Your task to perform on an android device: see tabs open on other devices in the chrome app Image 0: 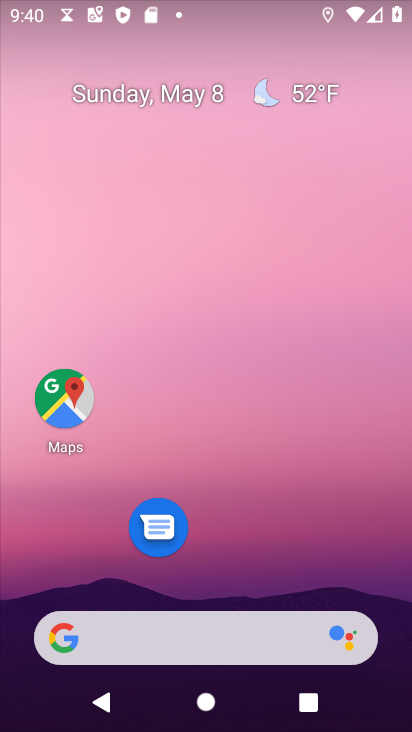
Step 0: drag from (255, 512) to (222, 8)
Your task to perform on an android device: see tabs open on other devices in the chrome app Image 1: 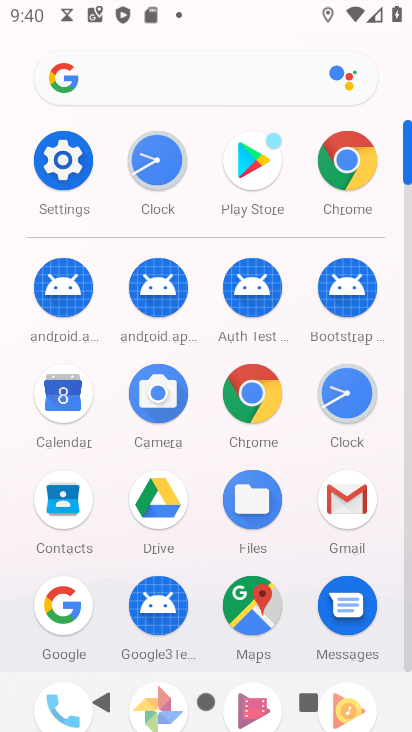
Step 1: click (352, 159)
Your task to perform on an android device: see tabs open on other devices in the chrome app Image 2: 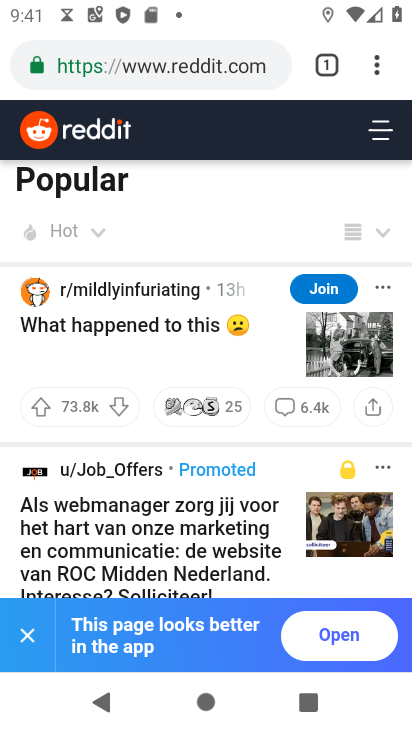
Step 2: click (376, 63)
Your task to perform on an android device: see tabs open on other devices in the chrome app Image 3: 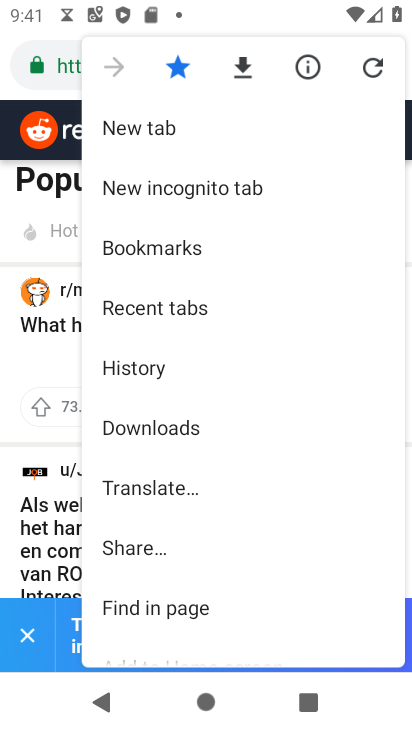
Step 3: click (187, 308)
Your task to perform on an android device: see tabs open on other devices in the chrome app Image 4: 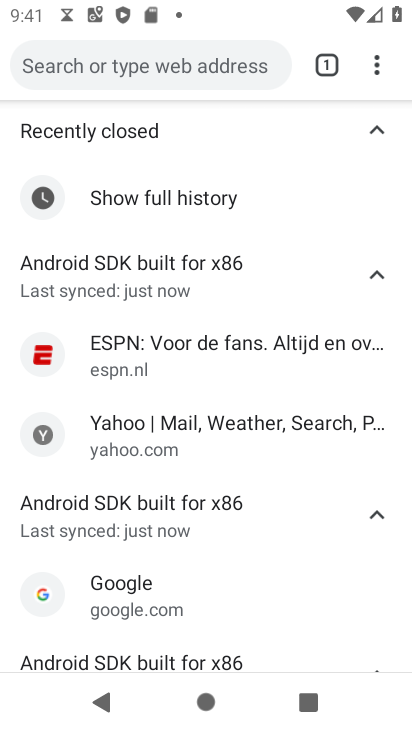
Step 4: click (378, 267)
Your task to perform on an android device: see tabs open on other devices in the chrome app Image 5: 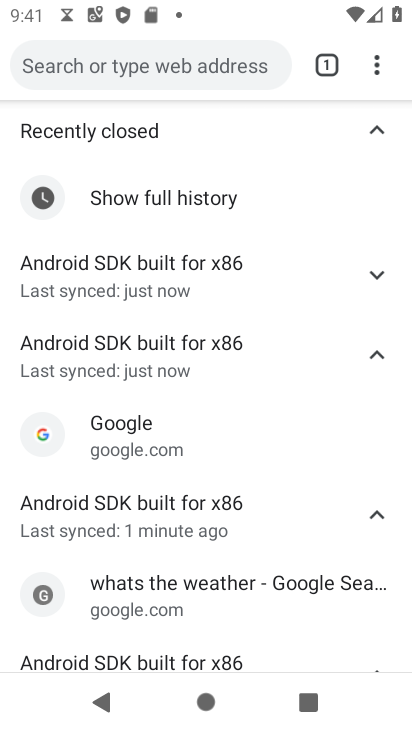
Step 5: click (377, 352)
Your task to perform on an android device: see tabs open on other devices in the chrome app Image 6: 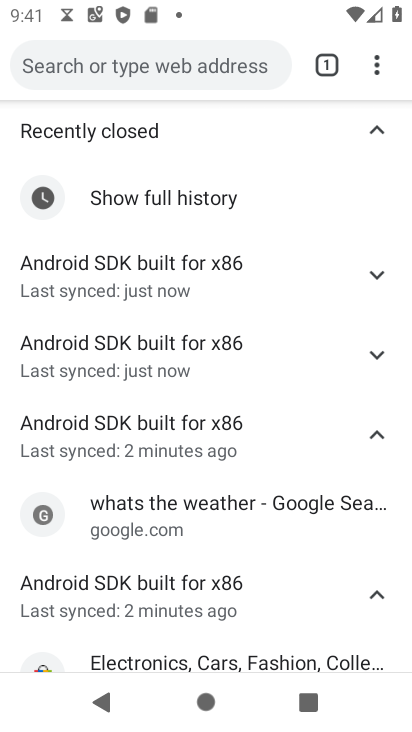
Step 6: task complete